Your task to perform on an android device: turn on improve location accuracy Image 0: 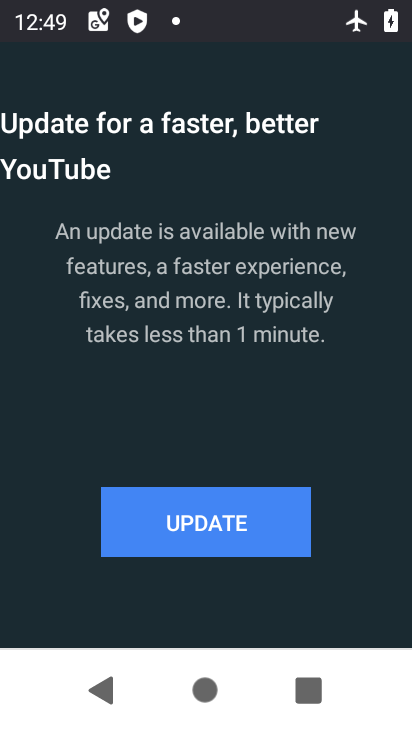
Step 0: click (236, 526)
Your task to perform on an android device: turn on improve location accuracy Image 1: 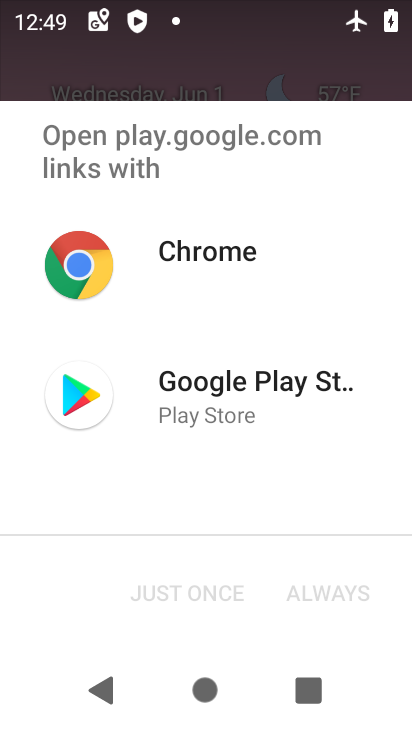
Step 1: press home button
Your task to perform on an android device: turn on improve location accuracy Image 2: 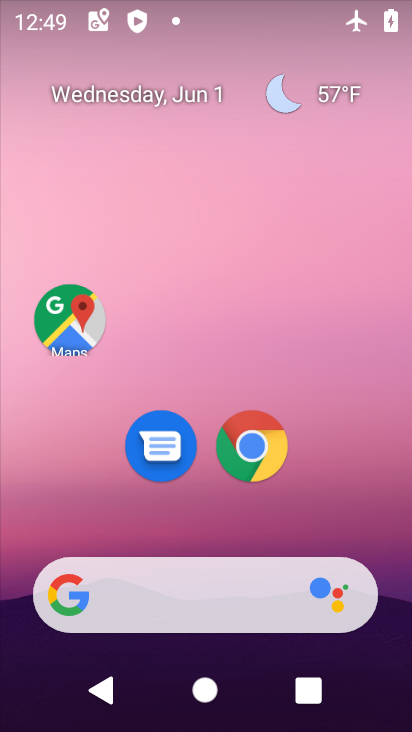
Step 2: drag from (246, 525) to (203, 173)
Your task to perform on an android device: turn on improve location accuracy Image 3: 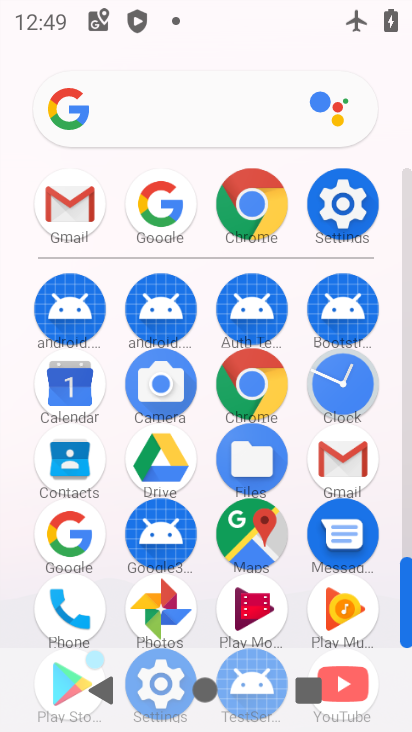
Step 3: drag from (195, 269) to (196, 145)
Your task to perform on an android device: turn on improve location accuracy Image 4: 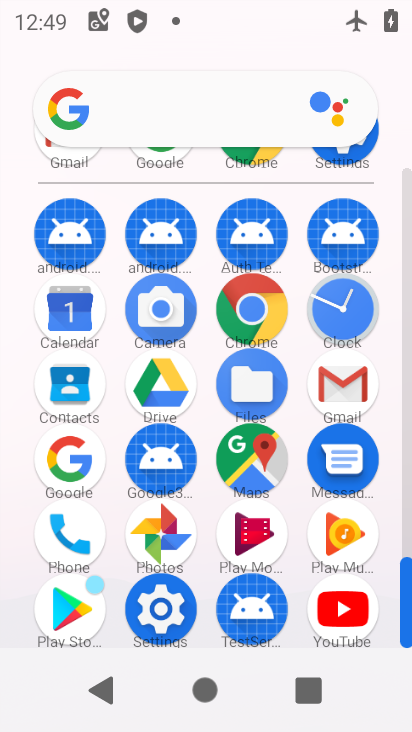
Step 4: click (159, 618)
Your task to perform on an android device: turn on improve location accuracy Image 5: 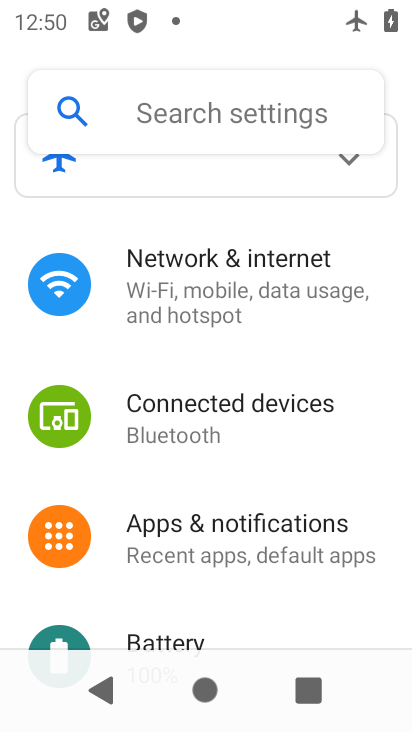
Step 5: drag from (227, 565) to (220, 385)
Your task to perform on an android device: turn on improve location accuracy Image 6: 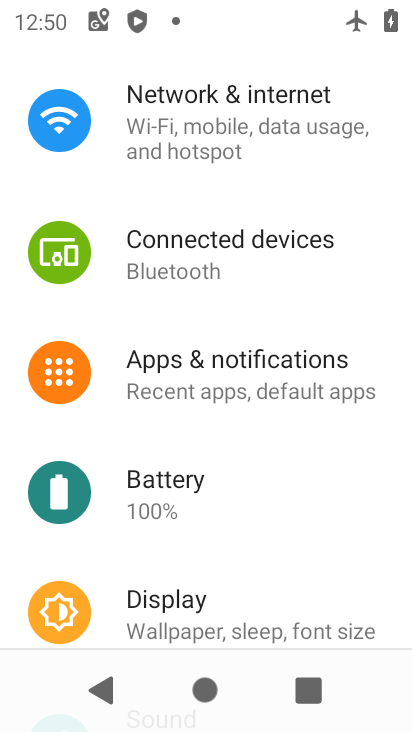
Step 6: drag from (205, 561) to (223, 465)
Your task to perform on an android device: turn on improve location accuracy Image 7: 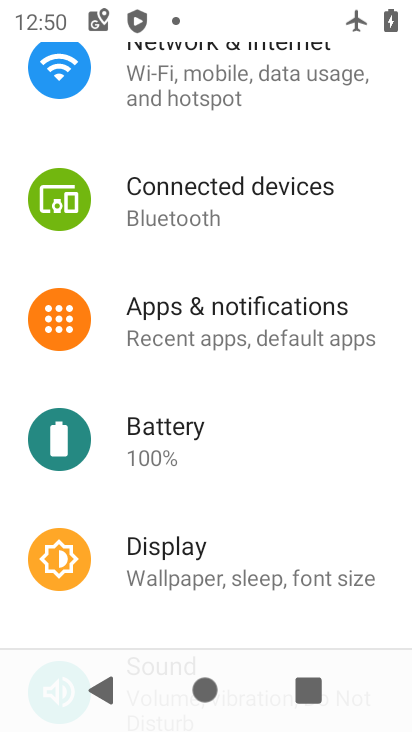
Step 7: drag from (219, 524) to (218, 325)
Your task to perform on an android device: turn on improve location accuracy Image 8: 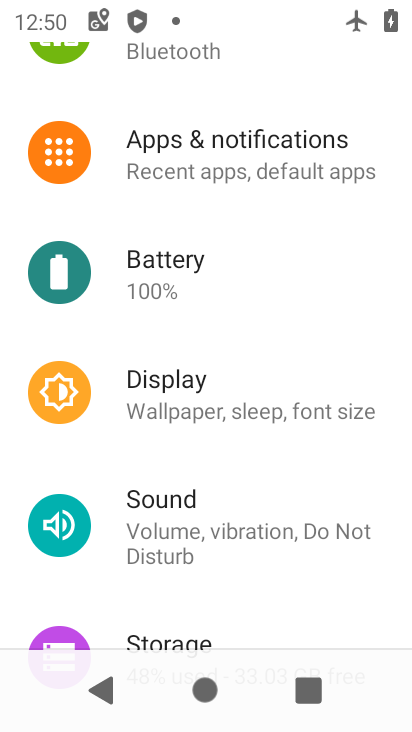
Step 8: drag from (222, 570) to (248, 267)
Your task to perform on an android device: turn on improve location accuracy Image 9: 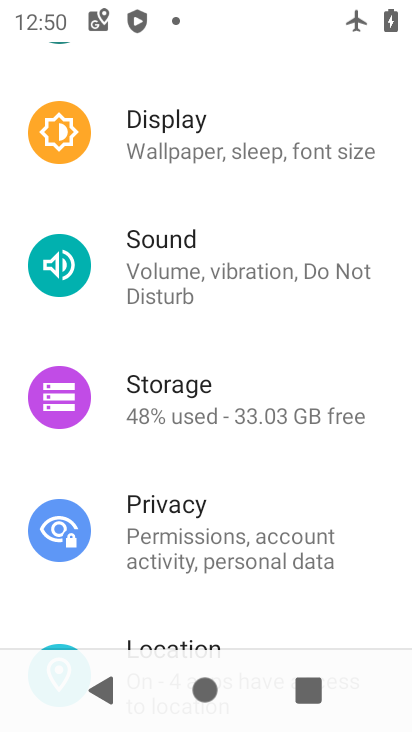
Step 9: drag from (246, 564) to (255, 303)
Your task to perform on an android device: turn on improve location accuracy Image 10: 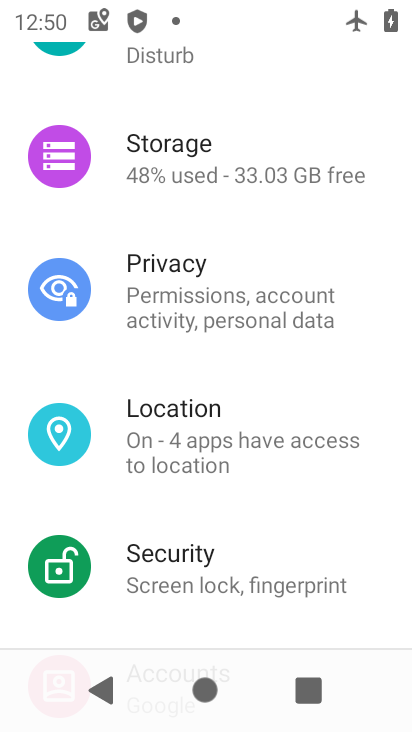
Step 10: click (226, 468)
Your task to perform on an android device: turn on improve location accuracy Image 11: 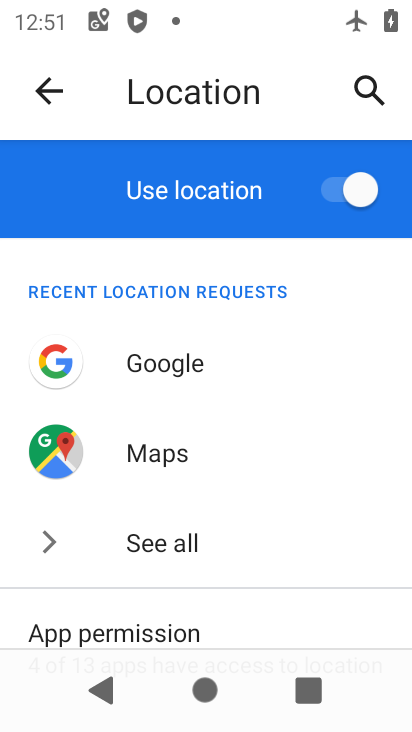
Step 11: drag from (239, 584) to (261, 255)
Your task to perform on an android device: turn on improve location accuracy Image 12: 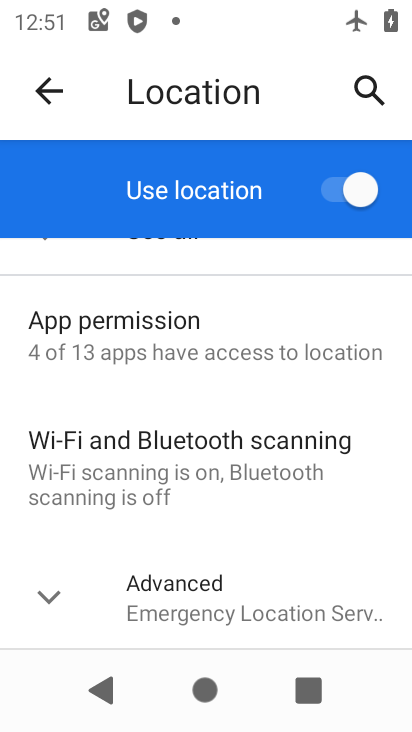
Step 12: click (179, 608)
Your task to perform on an android device: turn on improve location accuracy Image 13: 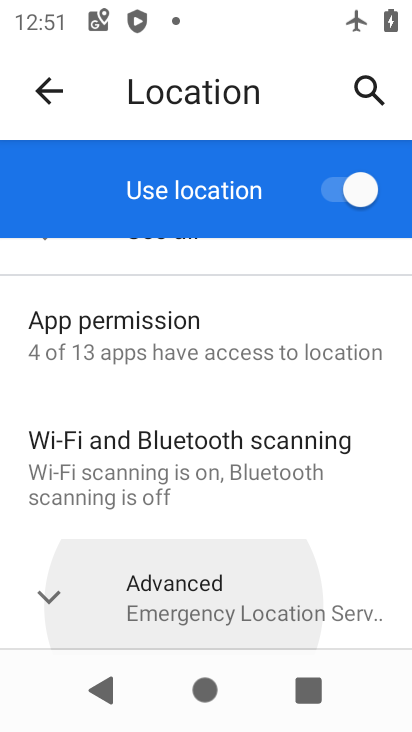
Step 13: drag from (185, 575) to (258, 235)
Your task to perform on an android device: turn on improve location accuracy Image 14: 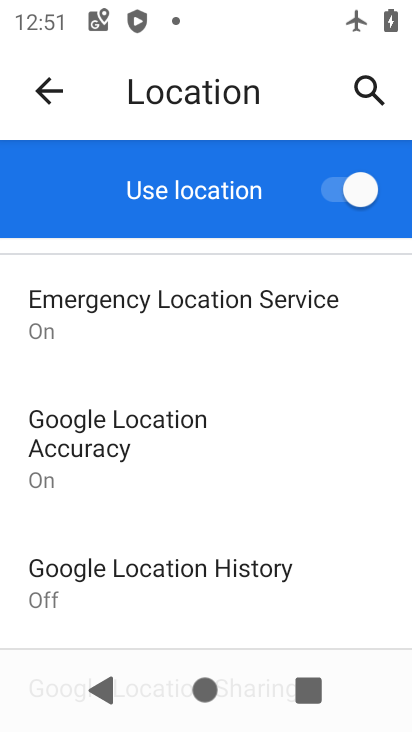
Step 14: drag from (229, 589) to (229, 493)
Your task to perform on an android device: turn on improve location accuracy Image 15: 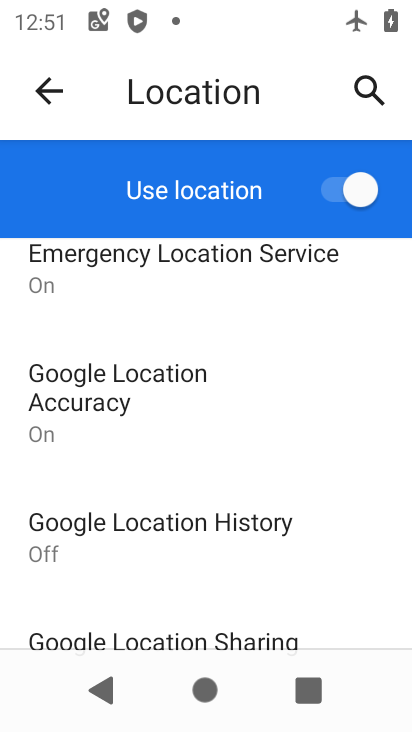
Step 15: click (192, 401)
Your task to perform on an android device: turn on improve location accuracy Image 16: 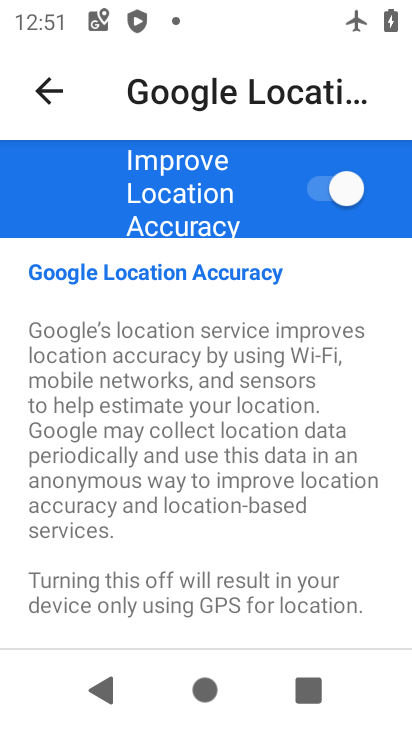
Step 16: task complete